Your task to perform on an android device: Open Chrome and go to settings Image 0: 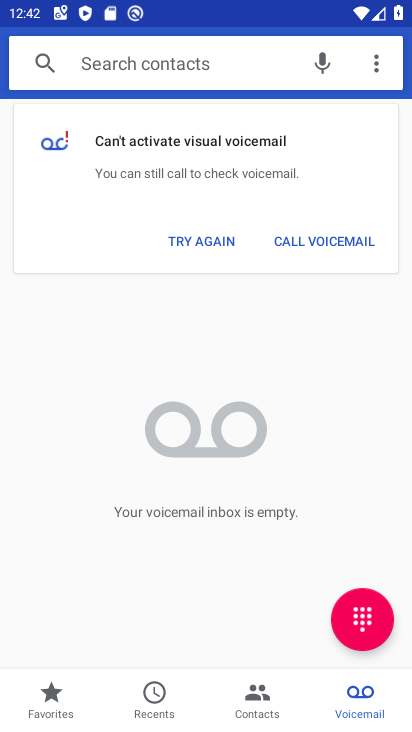
Step 0: press home button
Your task to perform on an android device: Open Chrome and go to settings Image 1: 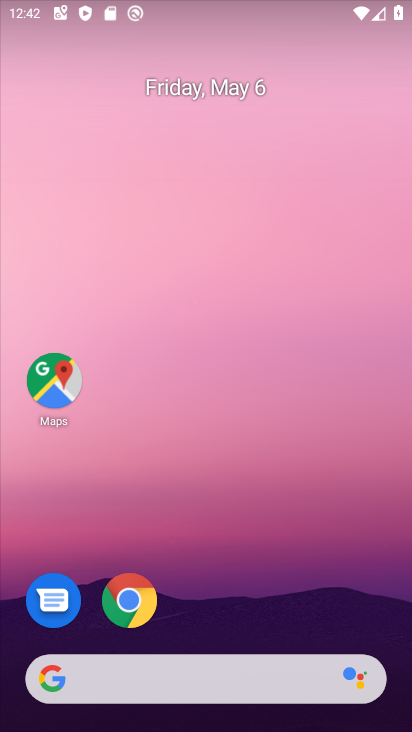
Step 1: drag from (309, 610) to (343, 144)
Your task to perform on an android device: Open Chrome and go to settings Image 2: 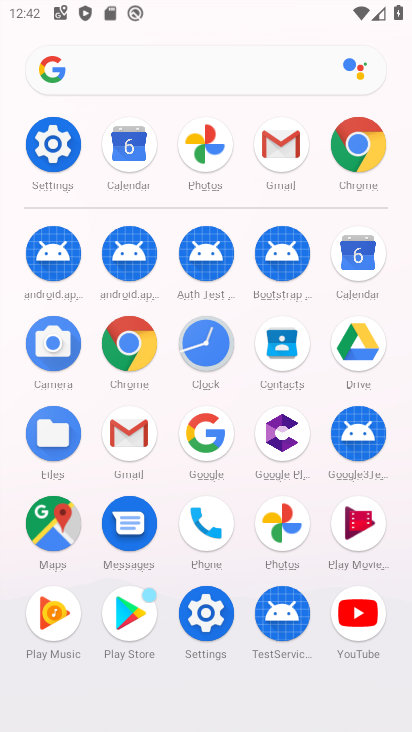
Step 2: click (372, 124)
Your task to perform on an android device: Open Chrome and go to settings Image 3: 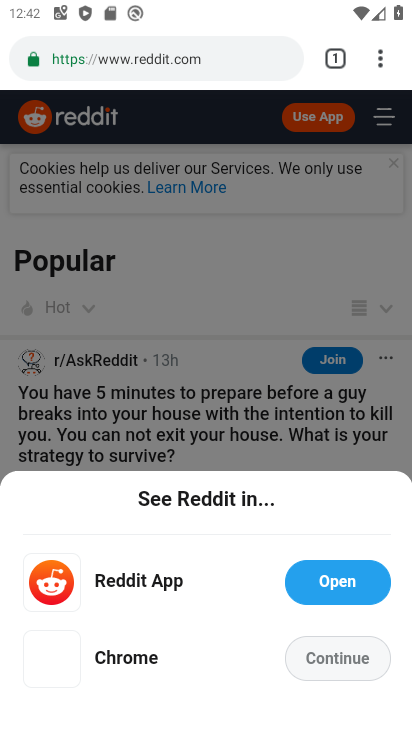
Step 3: press back button
Your task to perform on an android device: Open Chrome and go to settings Image 4: 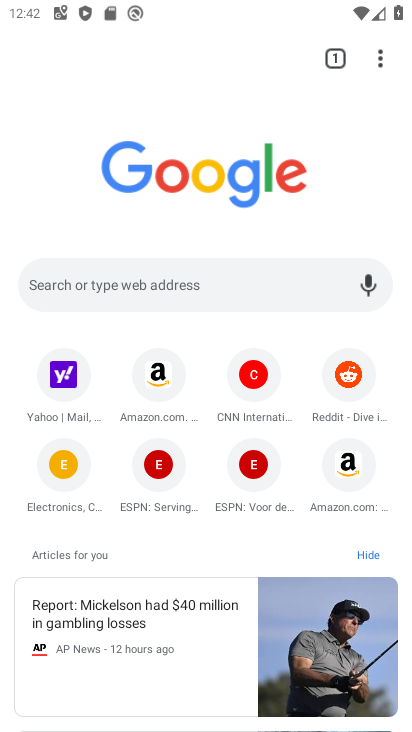
Step 4: click (381, 59)
Your task to perform on an android device: Open Chrome and go to settings Image 5: 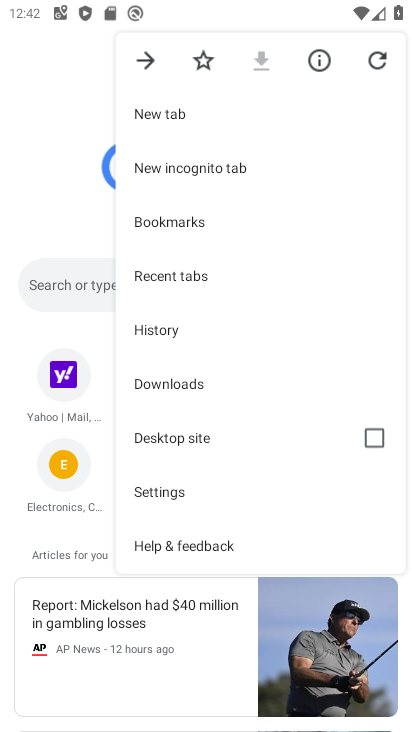
Step 5: click (216, 499)
Your task to perform on an android device: Open Chrome and go to settings Image 6: 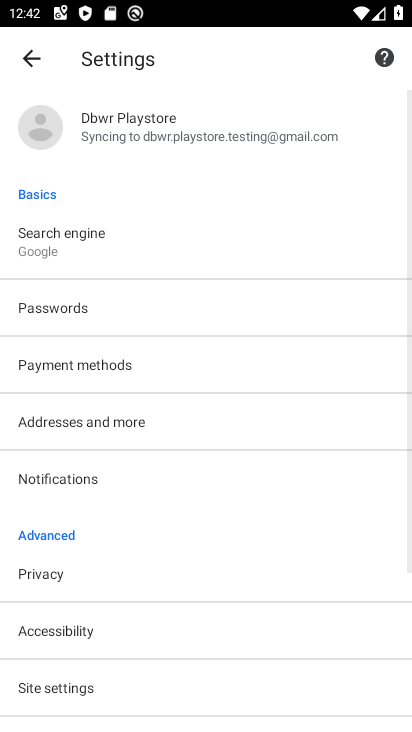
Step 6: task complete